Your task to perform on an android device: manage bookmarks in the chrome app Image 0: 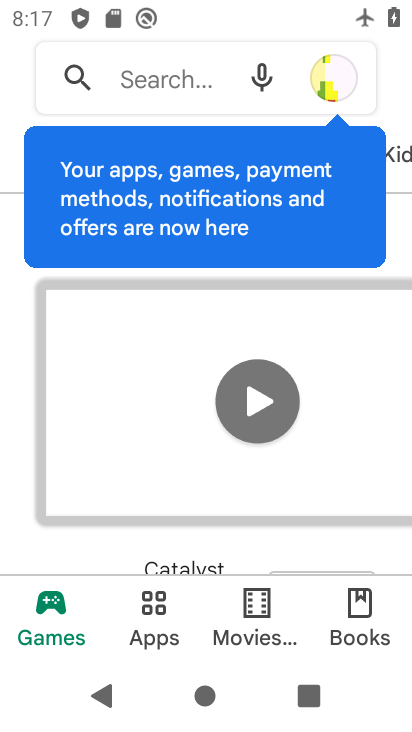
Step 0: press home button
Your task to perform on an android device: manage bookmarks in the chrome app Image 1: 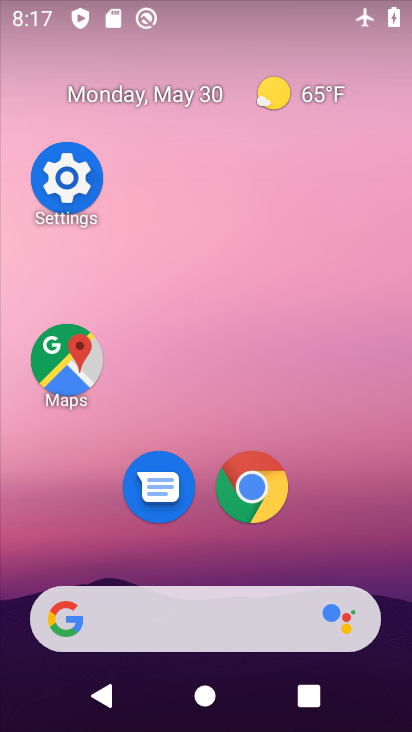
Step 1: click (236, 472)
Your task to perform on an android device: manage bookmarks in the chrome app Image 2: 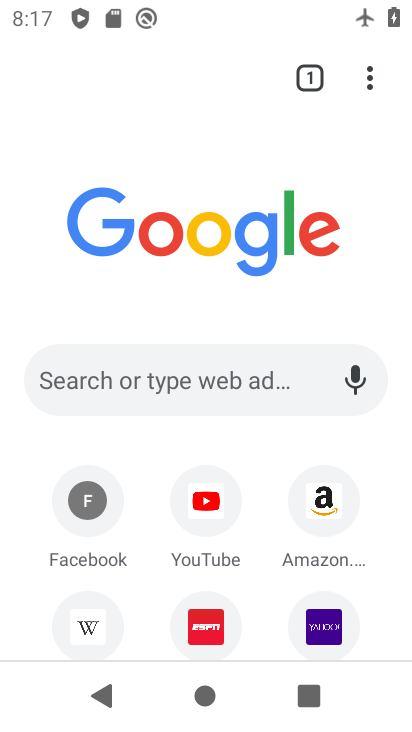
Step 2: click (385, 84)
Your task to perform on an android device: manage bookmarks in the chrome app Image 3: 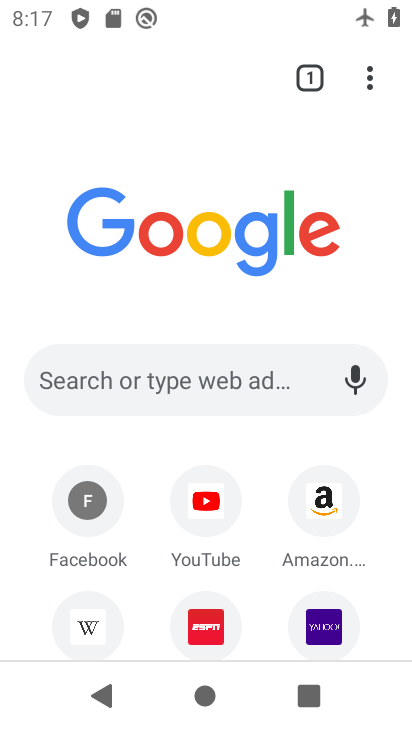
Step 3: click (366, 82)
Your task to perform on an android device: manage bookmarks in the chrome app Image 4: 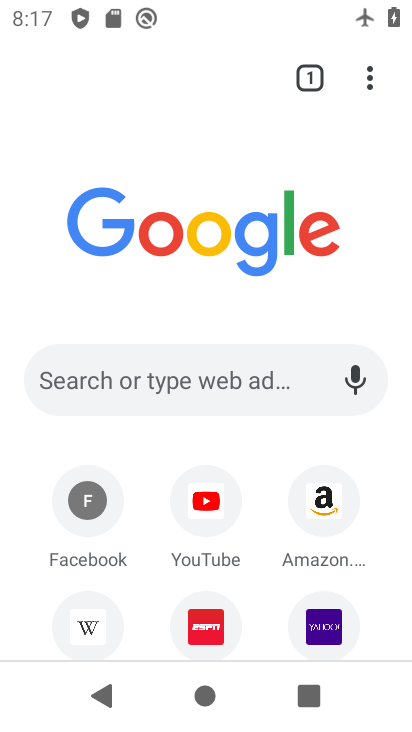
Step 4: click (365, 81)
Your task to perform on an android device: manage bookmarks in the chrome app Image 5: 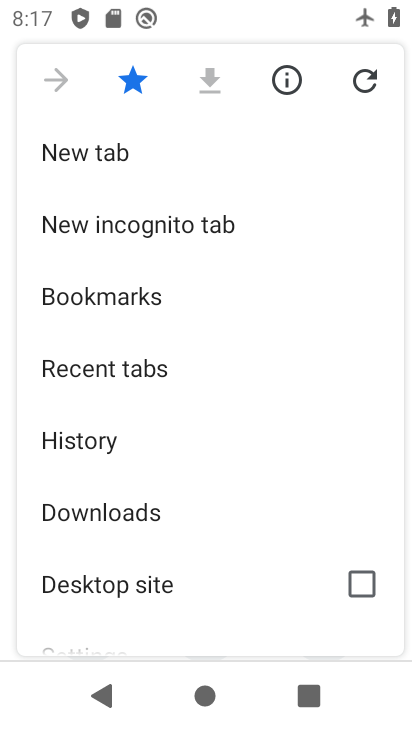
Step 5: click (134, 286)
Your task to perform on an android device: manage bookmarks in the chrome app Image 6: 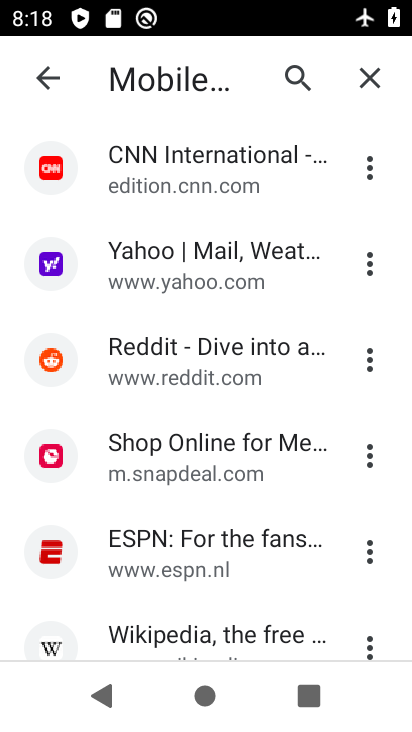
Step 6: click (383, 255)
Your task to perform on an android device: manage bookmarks in the chrome app Image 7: 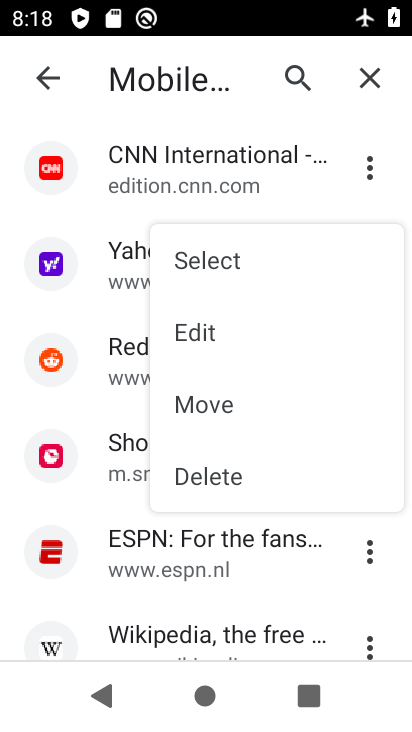
Step 7: click (186, 474)
Your task to perform on an android device: manage bookmarks in the chrome app Image 8: 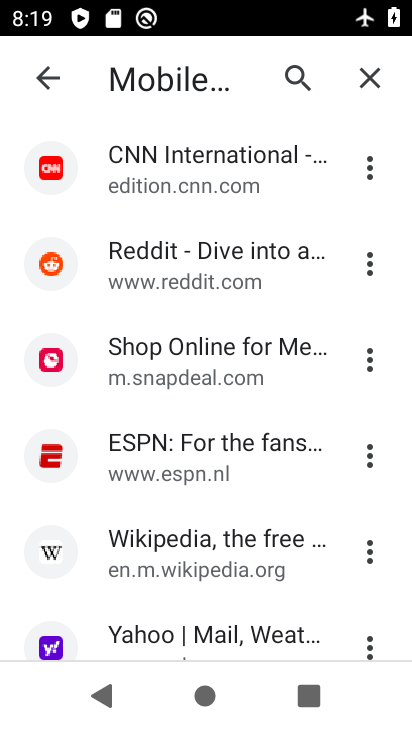
Step 8: task complete